Your task to perform on an android device: Open Youtube and go to the subscriptions tab Image 0: 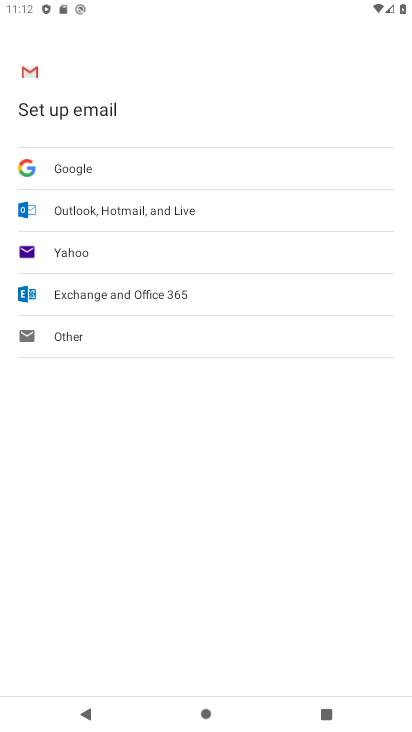
Step 0: press home button
Your task to perform on an android device: Open Youtube and go to the subscriptions tab Image 1: 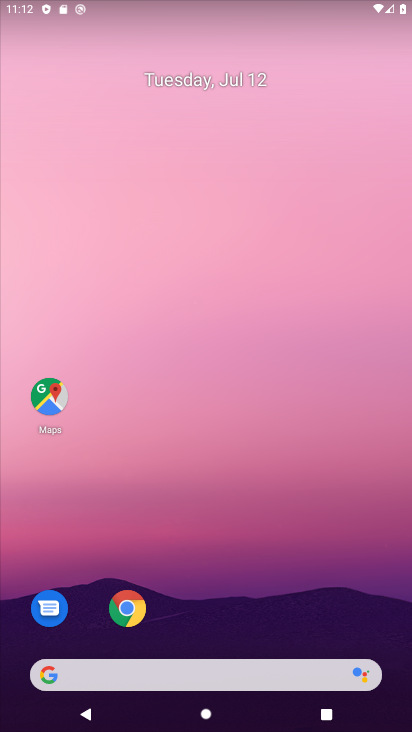
Step 1: drag from (174, 650) to (224, 41)
Your task to perform on an android device: Open Youtube and go to the subscriptions tab Image 2: 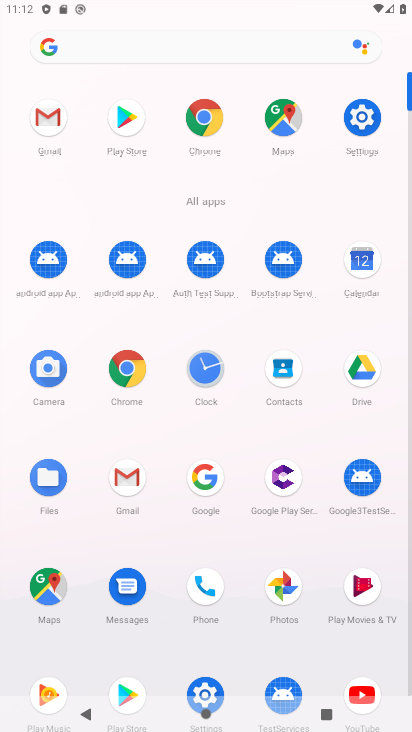
Step 2: click (357, 683)
Your task to perform on an android device: Open Youtube and go to the subscriptions tab Image 3: 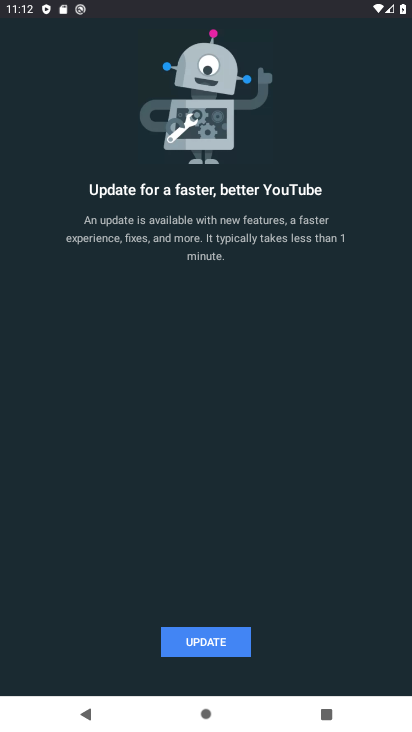
Step 3: click (209, 635)
Your task to perform on an android device: Open Youtube and go to the subscriptions tab Image 4: 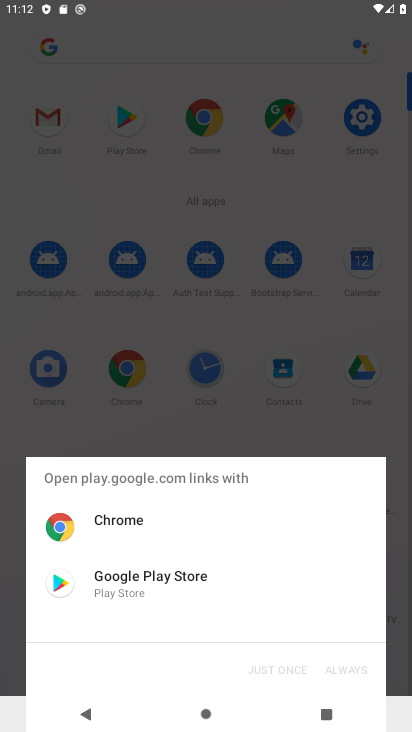
Step 4: click (168, 574)
Your task to perform on an android device: Open Youtube and go to the subscriptions tab Image 5: 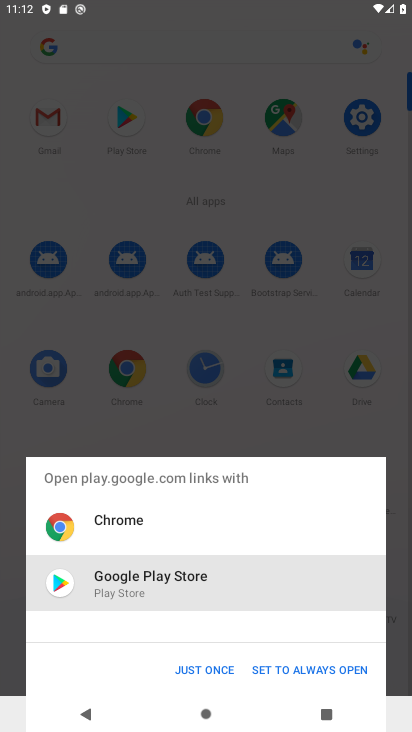
Step 5: click (224, 660)
Your task to perform on an android device: Open Youtube and go to the subscriptions tab Image 6: 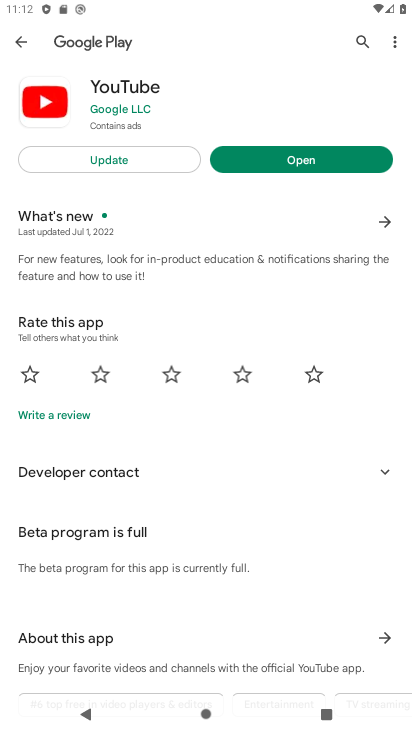
Step 6: click (343, 167)
Your task to perform on an android device: Open Youtube and go to the subscriptions tab Image 7: 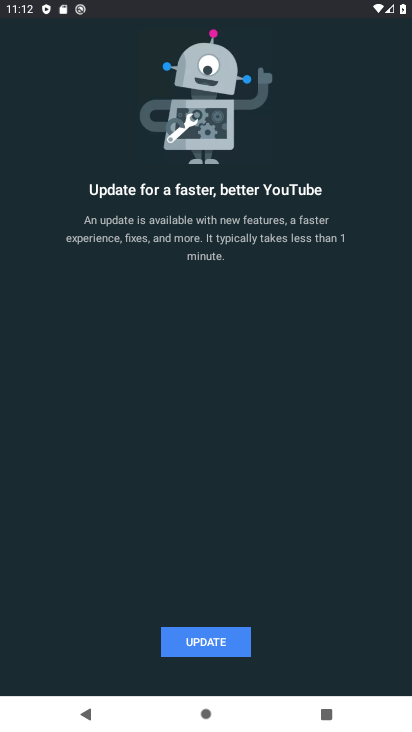
Step 7: click (217, 650)
Your task to perform on an android device: Open Youtube and go to the subscriptions tab Image 8: 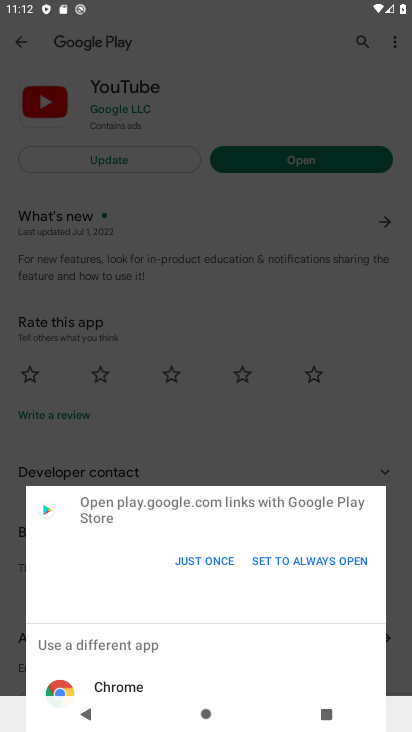
Step 8: click (218, 549)
Your task to perform on an android device: Open Youtube and go to the subscriptions tab Image 9: 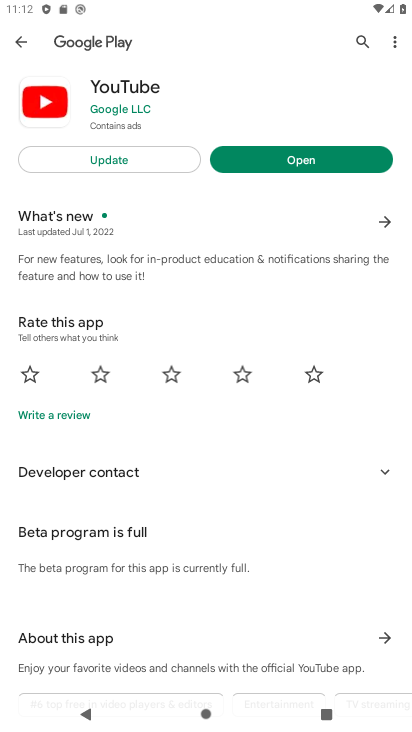
Step 9: click (107, 149)
Your task to perform on an android device: Open Youtube and go to the subscriptions tab Image 10: 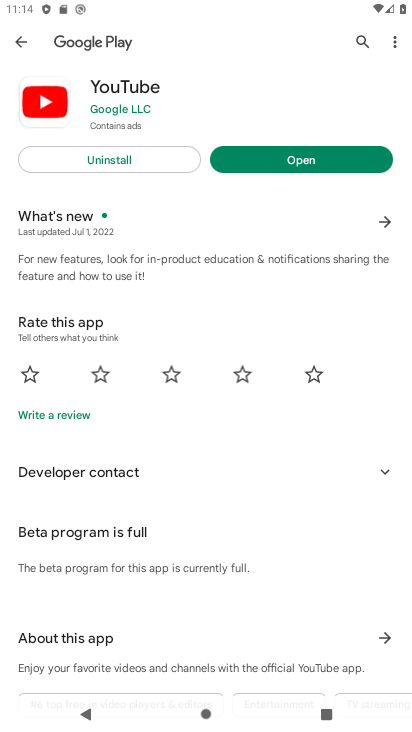
Step 10: click (298, 153)
Your task to perform on an android device: Open Youtube and go to the subscriptions tab Image 11: 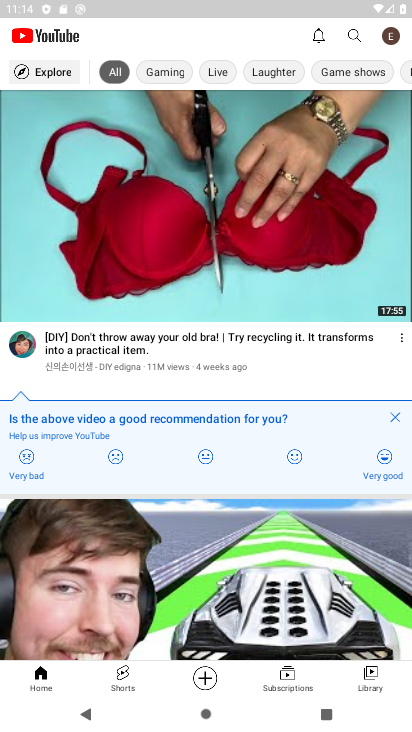
Step 11: click (281, 682)
Your task to perform on an android device: Open Youtube and go to the subscriptions tab Image 12: 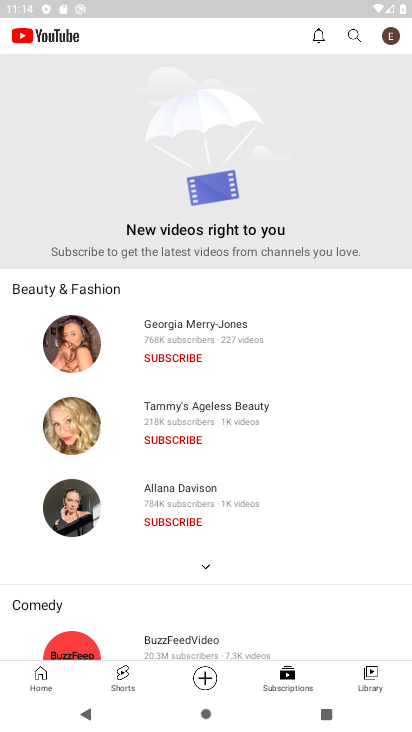
Step 12: click (290, 687)
Your task to perform on an android device: Open Youtube and go to the subscriptions tab Image 13: 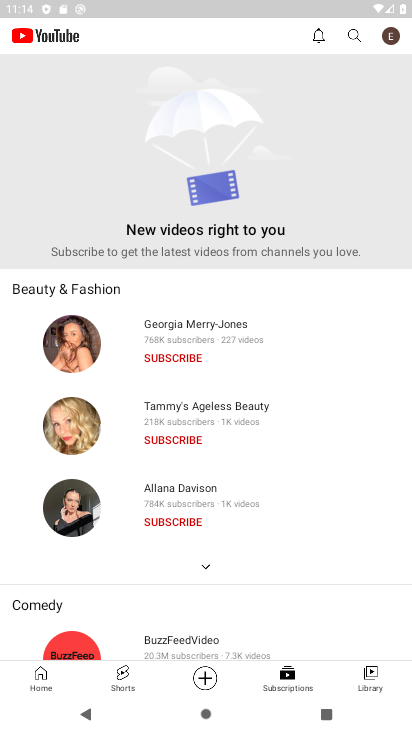
Step 13: task complete